Your task to perform on an android device: open chrome privacy settings Image 0: 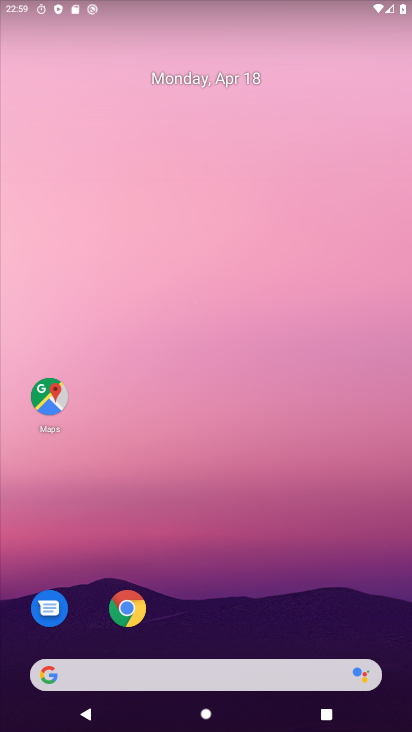
Step 0: click (127, 607)
Your task to perform on an android device: open chrome privacy settings Image 1: 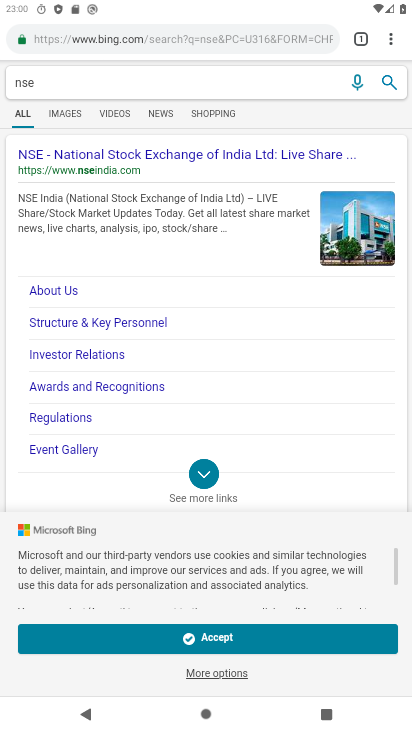
Step 1: click (392, 37)
Your task to perform on an android device: open chrome privacy settings Image 2: 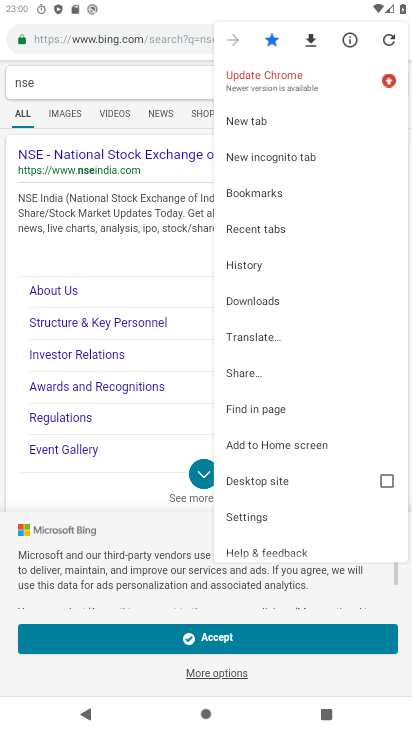
Step 2: click (259, 519)
Your task to perform on an android device: open chrome privacy settings Image 3: 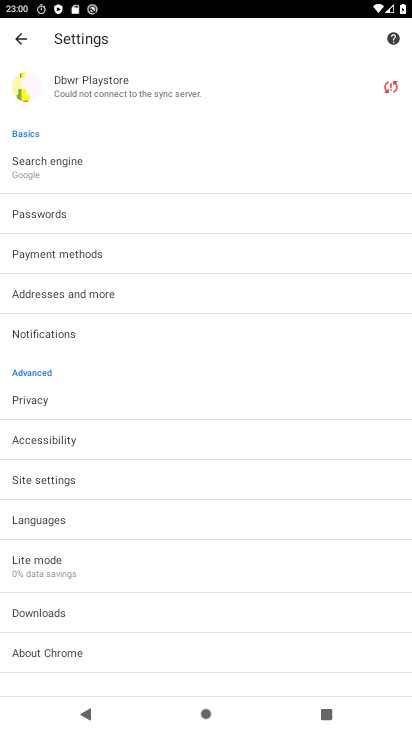
Step 3: click (76, 407)
Your task to perform on an android device: open chrome privacy settings Image 4: 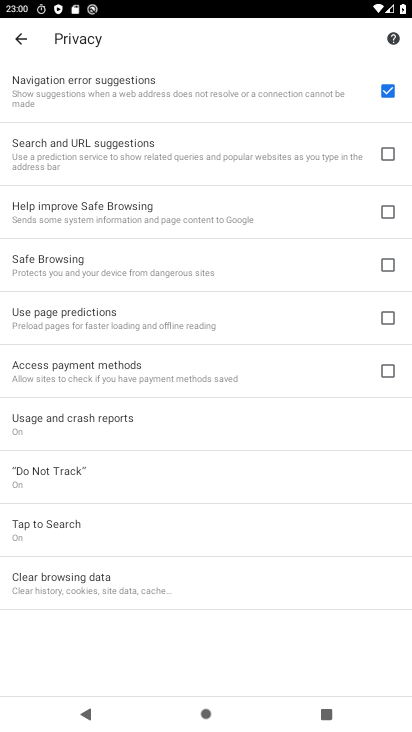
Step 4: task complete